Your task to perform on an android device: Go to battery settings Image 0: 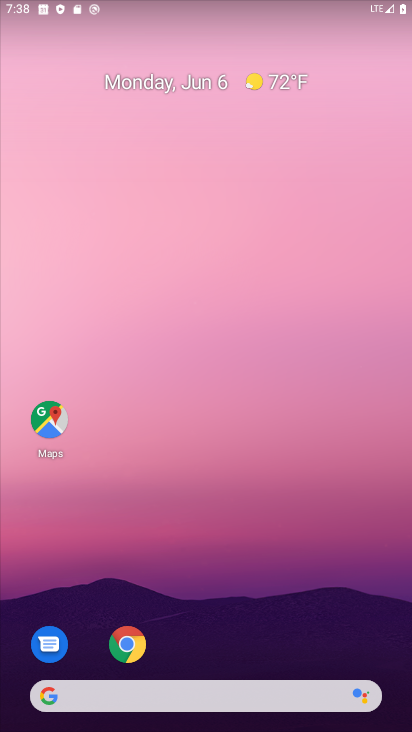
Step 0: drag from (227, 721) to (130, 293)
Your task to perform on an android device: Go to battery settings Image 1: 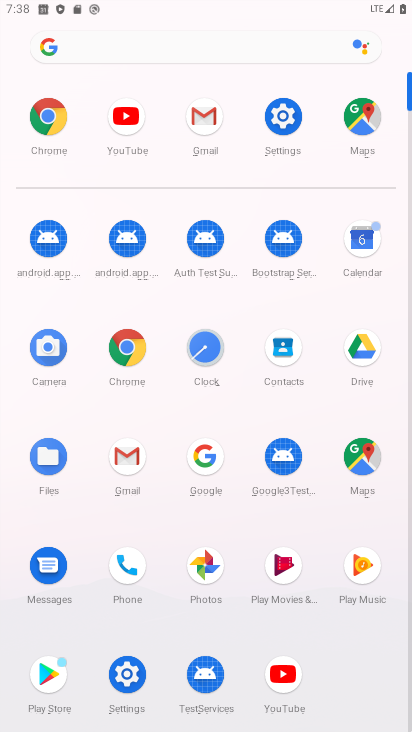
Step 1: click (128, 674)
Your task to perform on an android device: Go to battery settings Image 2: 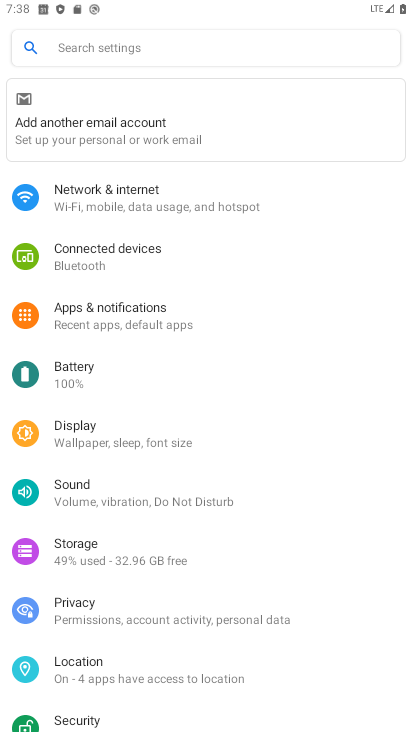
Step 2: click (81, 373)
Your task to perform on an android device: Go to battery settings Image 3: 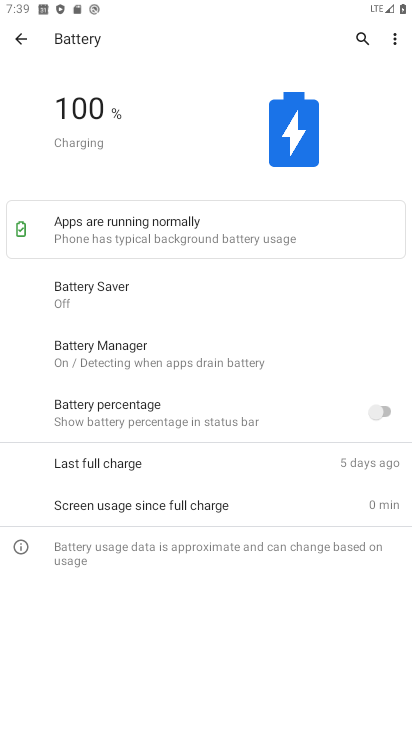
Step 3: task complete